Your task to perform on an android device: Open notification settings Image 0: 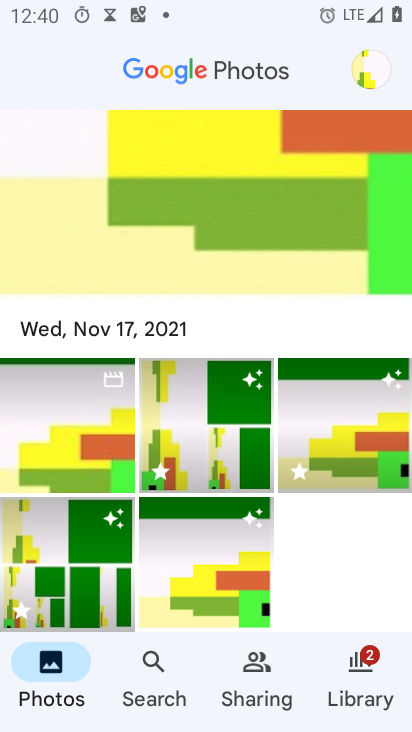
Step 0: press home button
Your task to perform on an android device: Open notification settings Image 1: 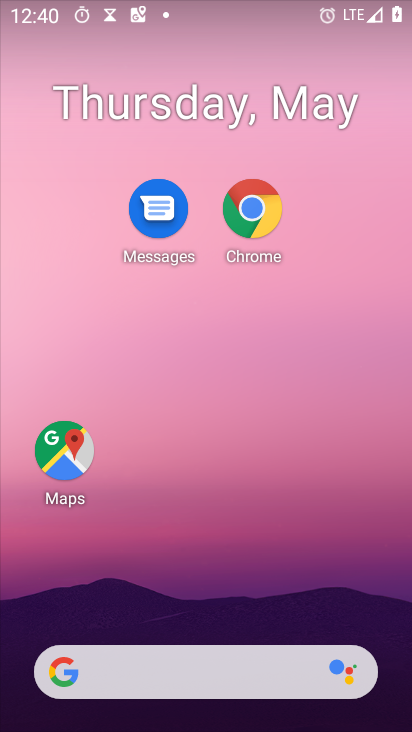
Step 1: drag from (197, 611) to (260, 21)
Your task to perform on an android device: Open notification settings Image 2: 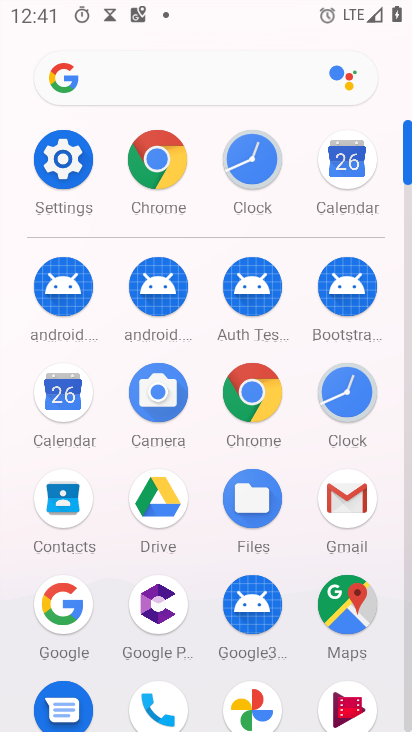
Step 2: click (55, 153)
Your task to perform on an android device: Open notification settings Image 3: 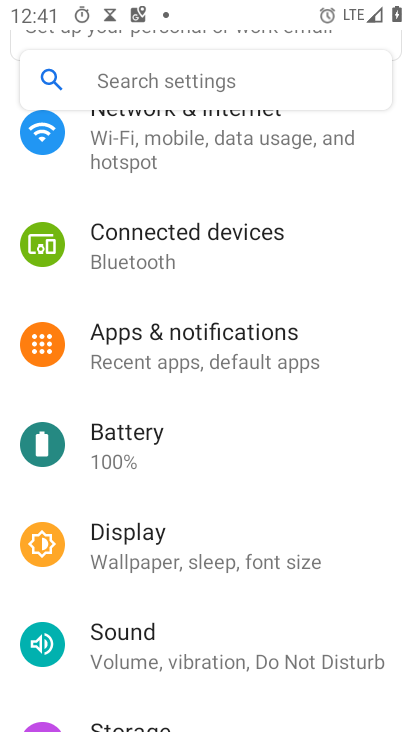
Step 3: click (138, 357)
Your task to perform on an android device: Open notification settings Image 4: 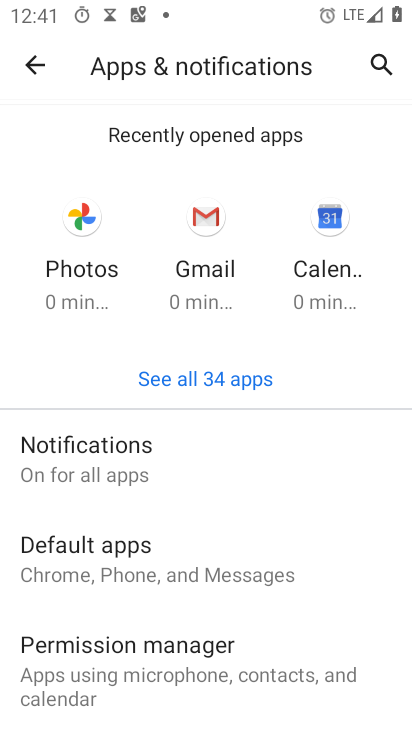
Step 4: click (94, 472)
Your task to perform on an android device: Open notification settings Image 5: 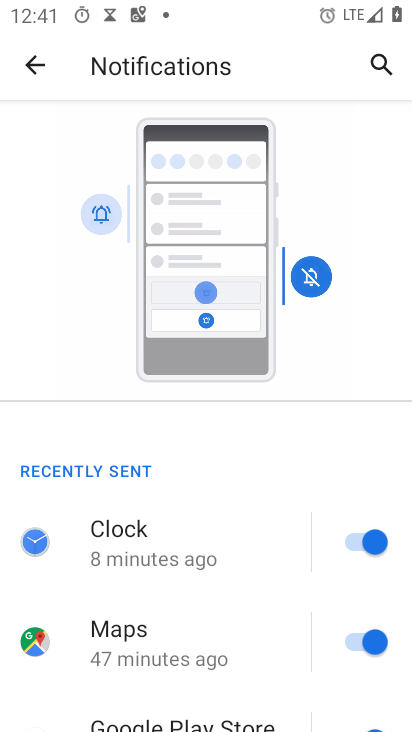
Step 5: drag from (172, 634) to (167, 0)
Your task to perform on an android device: Open notification settings Image 6: 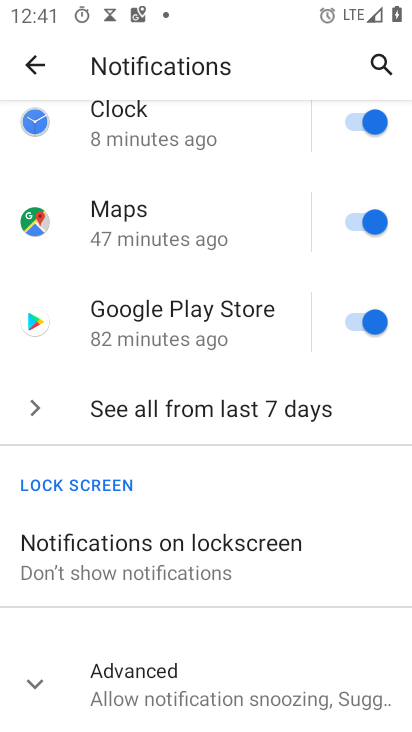
Step 6: drag from (198, 637) to (232, 375)
Your task to perform on an android device: Open notification settings Image 7: 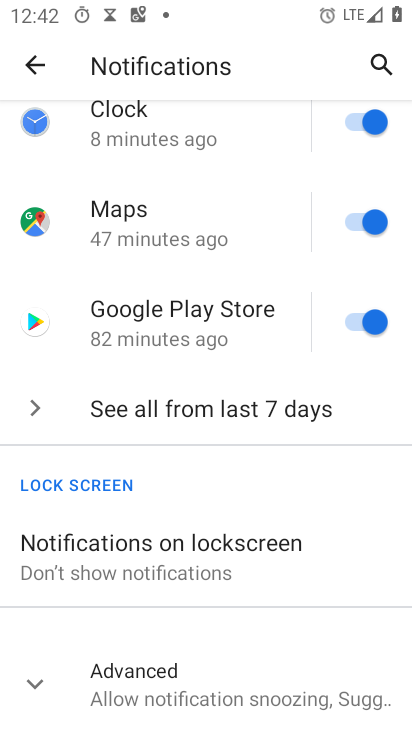
Step 7: click (153, 539)
Your task to perform on an android device: Open notification settings Image 8: 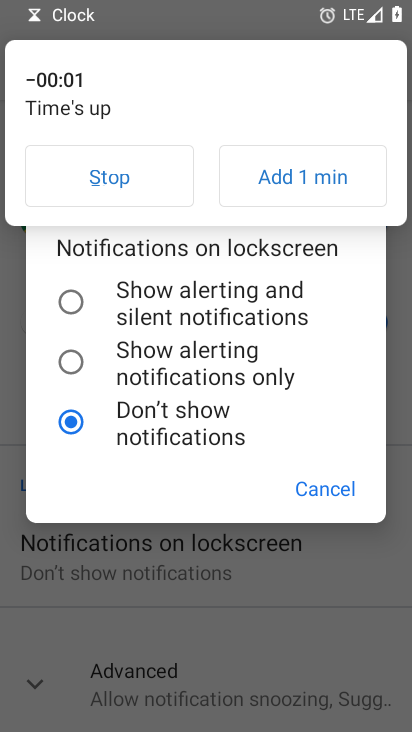
Step 8: click (61, 310)
Your task to perform on an android device: Open notification settings Image 9: 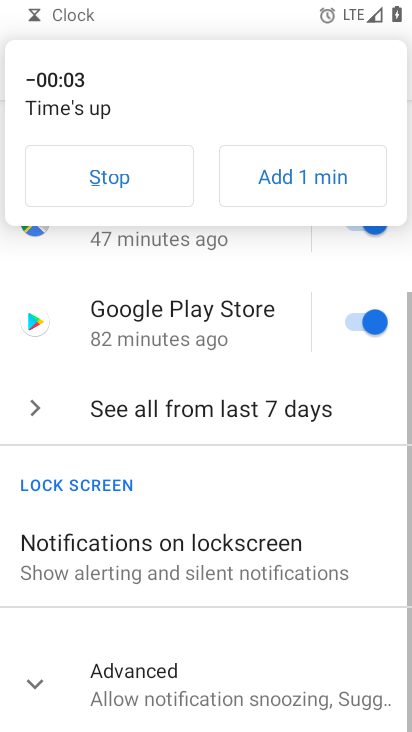
Step 9: click (92, 176)
Your task to perform on an android device: Open notification settings Image 10: 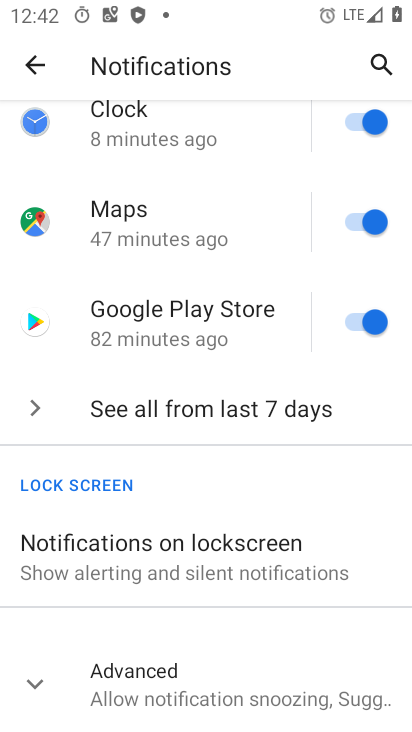
Step 10: task complete